Your task to perform on an android device: delete browsing data in the chrome app Image 0: 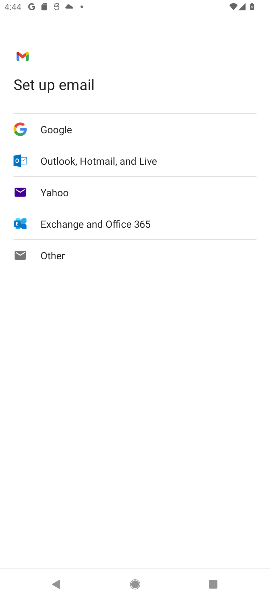
Step 0: press back button
Your task to perform on an android device: delete browsing data in the chrome app Image 1: 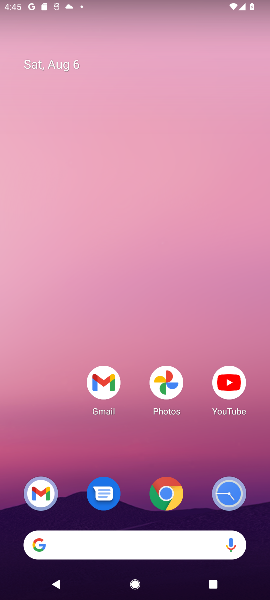
Step 1: click (88, 345)
Your task to perform on an android device: delete browsing data in the chrome app Image 2: 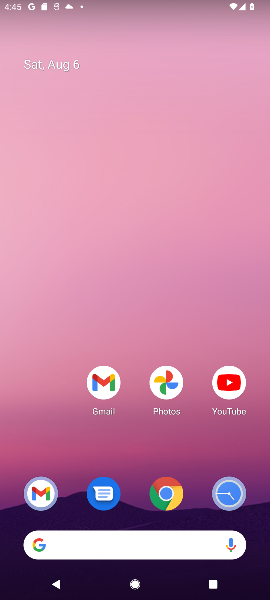
Step 2: click (97, 275)
Your task to perform on an android device: delete browsing data in the chrome app Image 3: 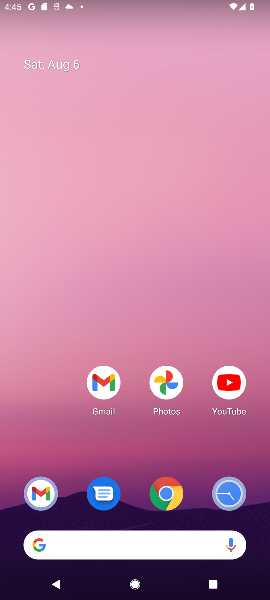
Step 3: drag from (152, 578) to (157, 298)
Your task to perform on an android device: delete browsing data in the chrome app Image 4: 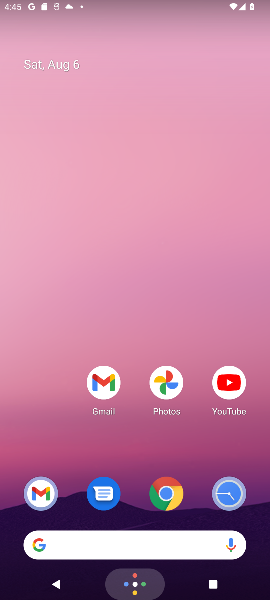
Step 4: drag from (199, 508) to (195, 129)
Your task to perform on an android device: delete browsing data in the chrome app Image 5: 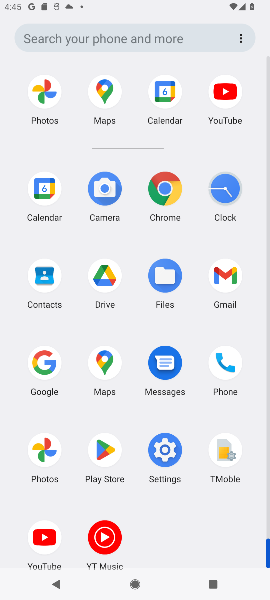
Step 5: drag from (153, 375) to (153, 52)
Your task to perform on an android device: delete browsing data in the chrome app Image 6: 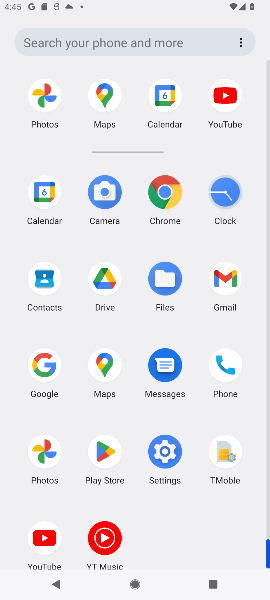
Step 6: click (163, 201)
Your task to perform on an android device: delete browsing data in the chrome app Image 7: 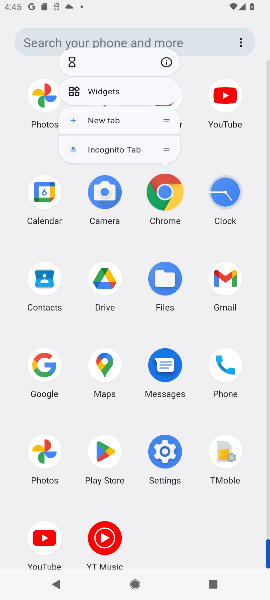
Step 7: click (163, 201)
Your task to perform on an android device: delete browsing data in the chrome app Image 8: 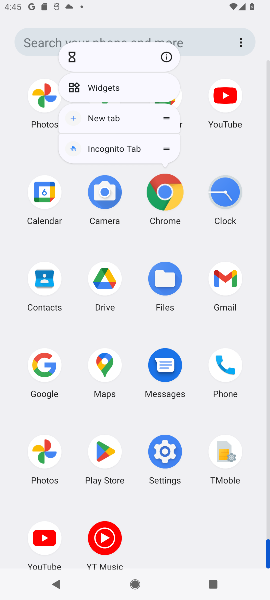
Step 8: click (163, 201)
Your task to perform on an android device: delete browsing data in the chrome app Image 9: 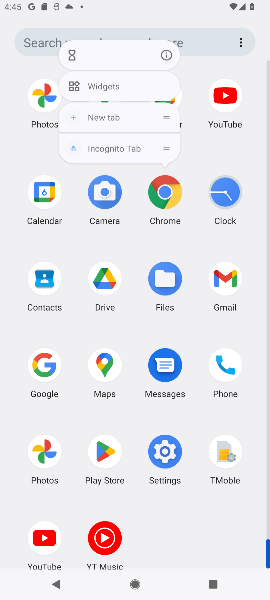
Step 9: click (163, 201)
Your task to perform on an android device: delete browsing data in the chrome app Image 10: 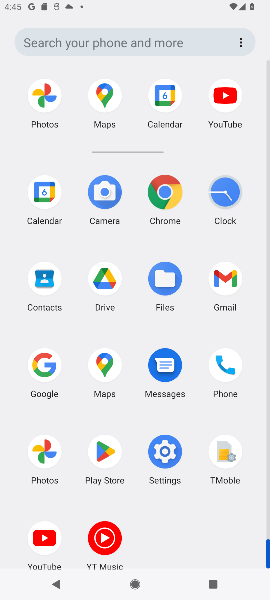
Step 10: click (163, 201)
Your task to perform on an android device: delete browsing data in the chrome app Image 11: 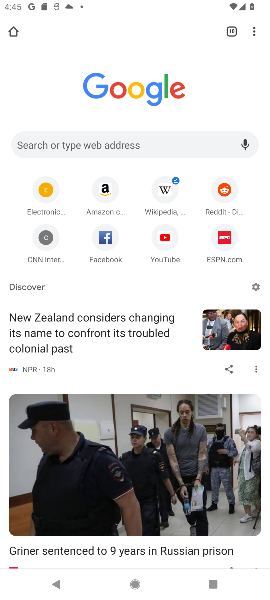
Step 11: click (250, 28)
Your task to perform on an android device: delete browsing data in the chrome app Image 12: 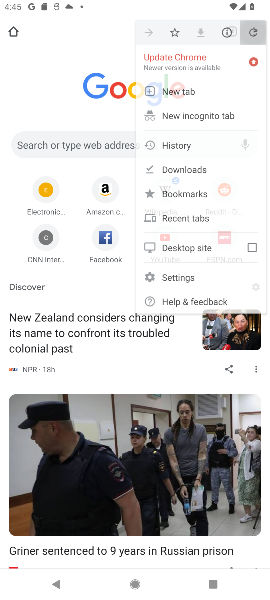
Step 12: drag from (250, 40) to (157, 163)
Your task to perform on an android device: delete browsing data in the chrome app Image 13: 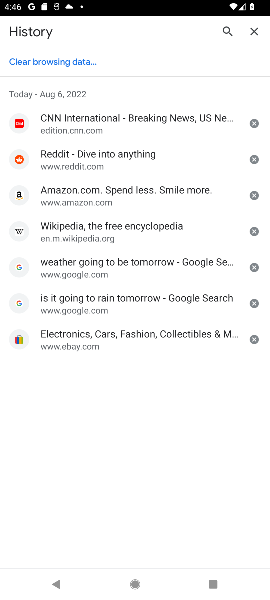
Step 13: click (157, 164)
Your task to perform on an android device: delete browsing data in the chrome app Image 14: 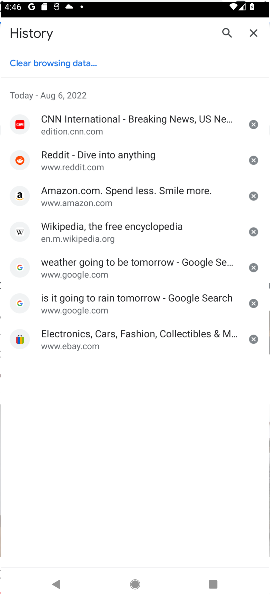
Step 14: click (63, 64)
Your task to perform on an android device: delete browsing data in the chrome app Image 15: 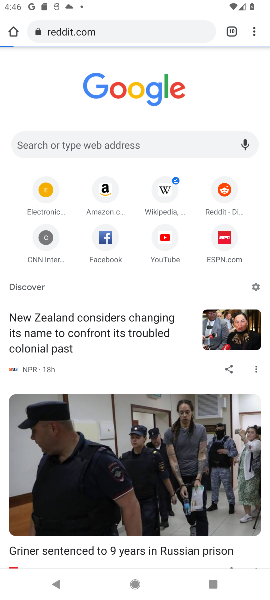
Step 15: click (62, 63)
Your task to perform on an android device: delete browsing data in the chrome app Image 16: 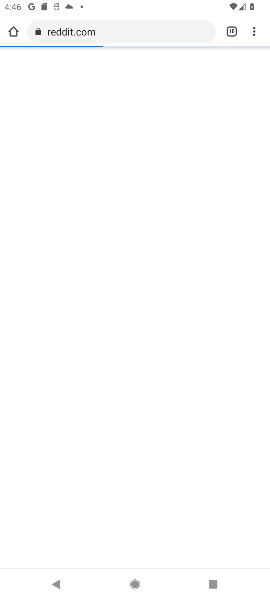
Step 16: click (62, 63)
Your task to perform on an android device: delete browsing data in the chrome app Image 17: 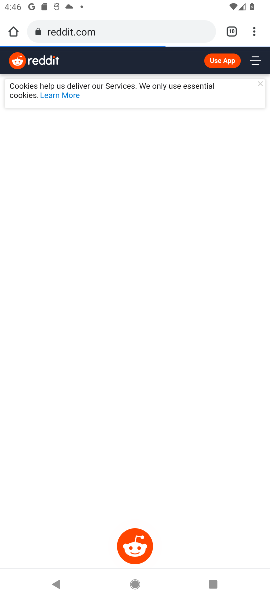
Step 17: task complete